Your task to perform on an android device: Search for "rayovac triple a" on costco, select the first entry, and add it to the cart. Image 0: 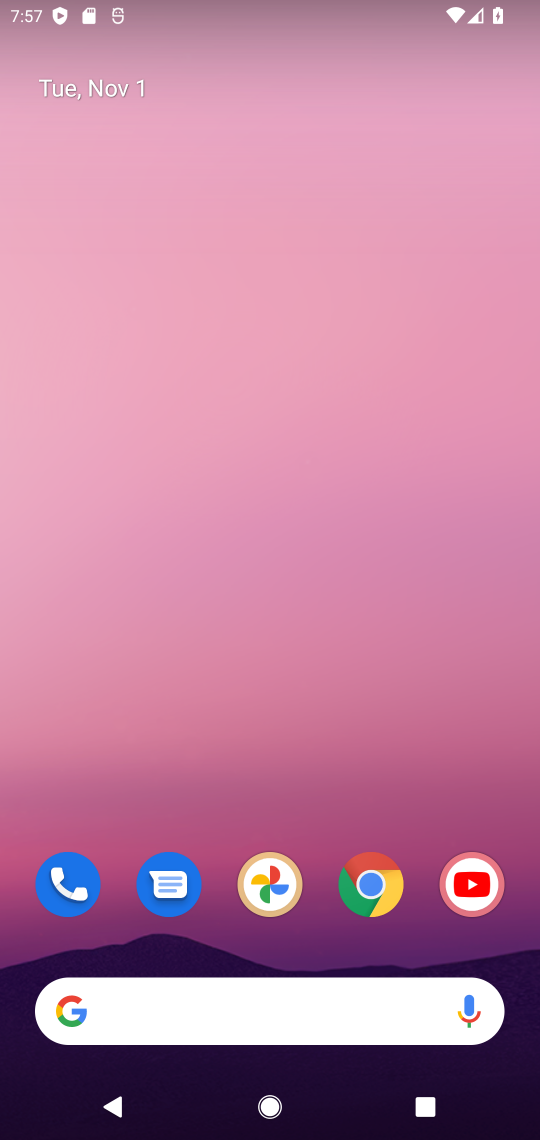
Step 0: click (368, 885)
Your task to perform on an android device: Search for "rayovac triple a" on costco, select the first entry, and add it to the cart. Image 1: 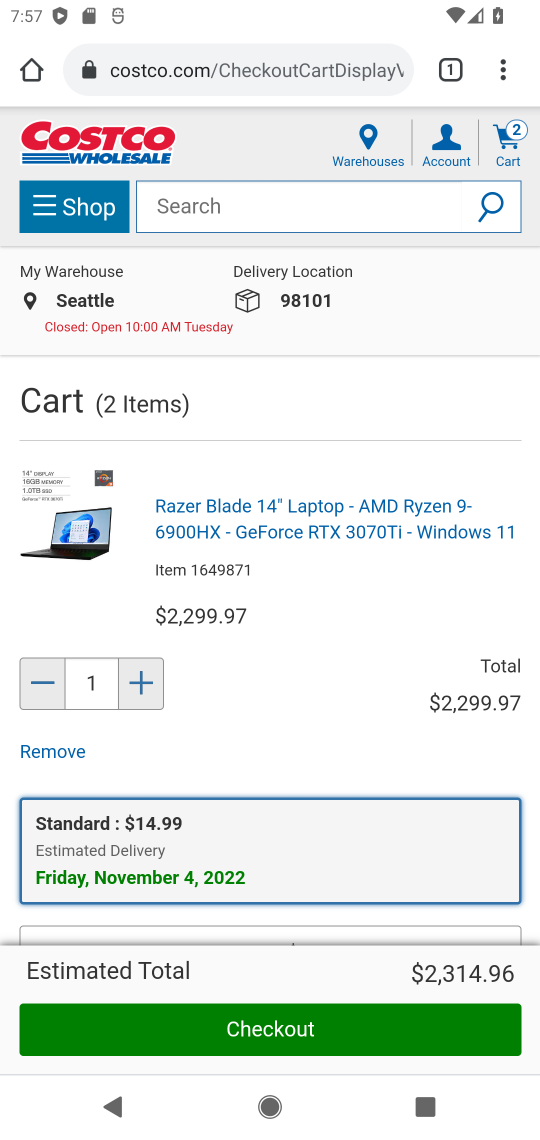
Step 1: click (398, 210)
Your task to perform on an android device: Search for "rayovac triple a" on costco, select the first entry, and add it to the cart. Image 2: 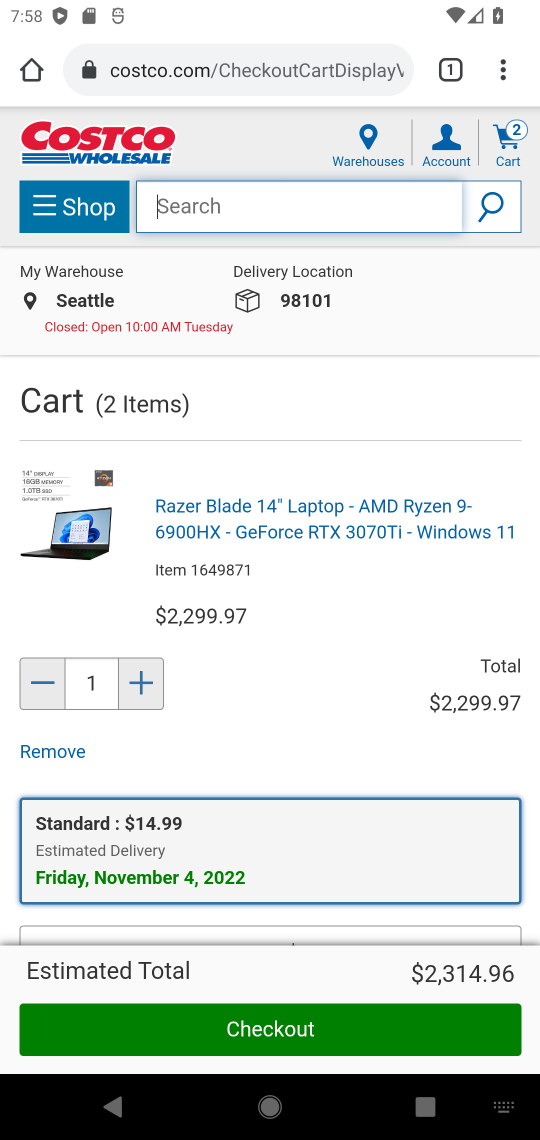
Step 2: type "rayovac triple a"
Your task to perform on an android device: Search for "rayovac triple a" on costco, select the first entry, and add it to the cart. Image 3: 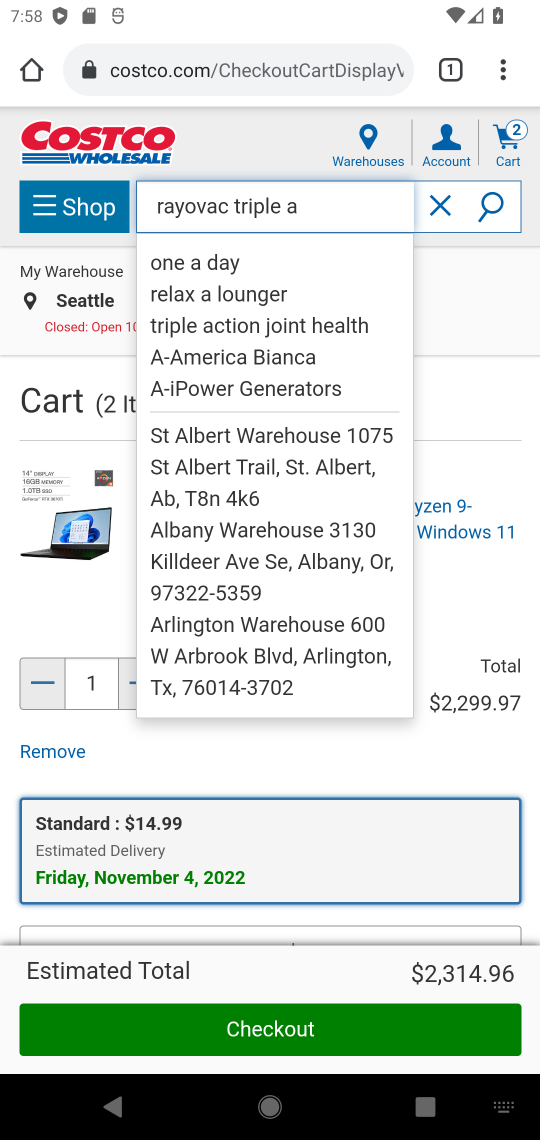
Step 3: click (494, 207)
Your task to perform on an android device: Search for "rayovac triple a" on costco, select the first entry, and add it to the cart. Image 4: 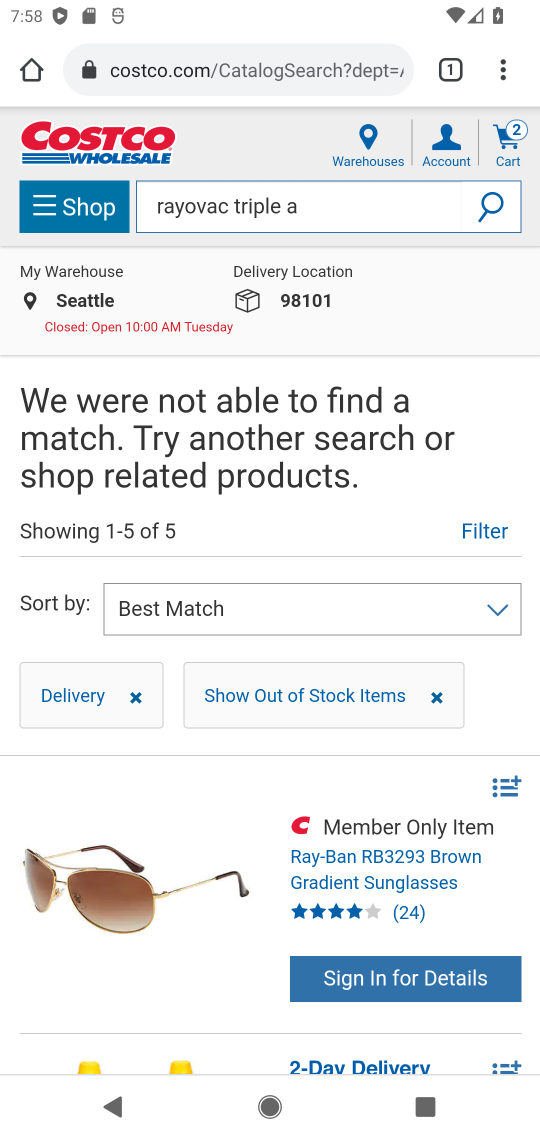
Step 4: task complete